Your task to perform on an android device: Open calendar and show me the fourth week of next month Image 0: 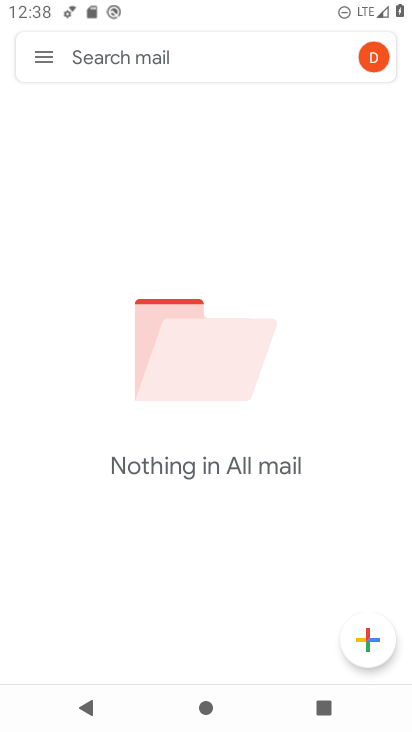
Step 0: press home button
Your task to perform on an android device: Open calendar and show me the fourth week of next month Image 1: 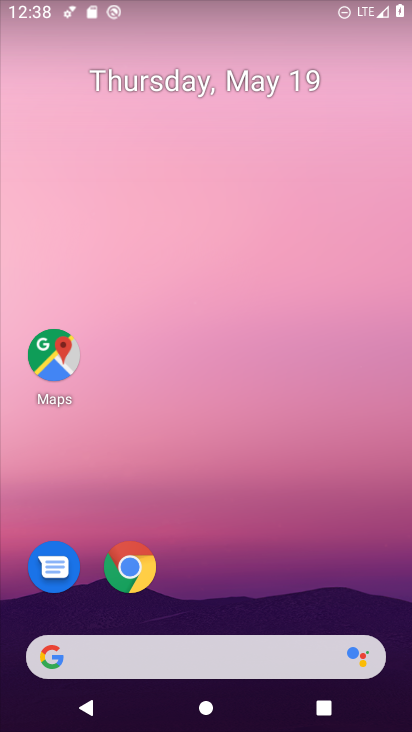
Step 1: drag from (292, 546) to (273, 61)
Your task to perform on an android device: Open calendar and show me the fourth week of next month Image 2: 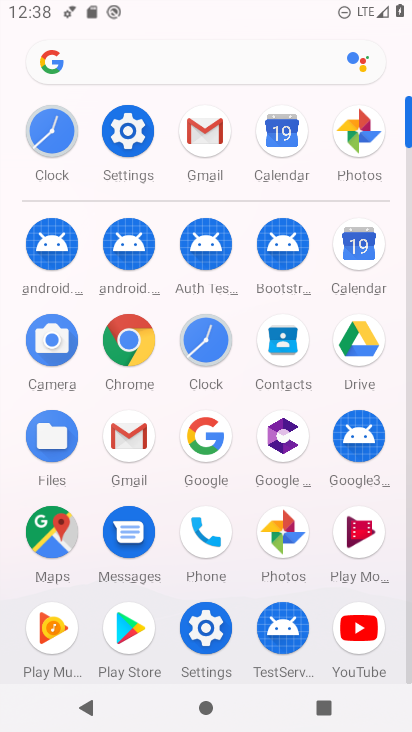
Step 2: click (286, 120)
Your task to perform on an android device: Open calendar and show me the fourth week of next month Image 3: 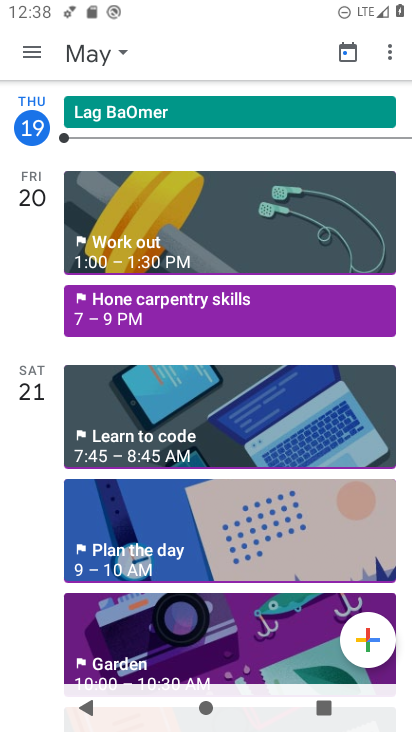
Step 3: click (34, 47)
Your task to perform on an android device: Open calendar and show me the fourth week of next month Image 4: 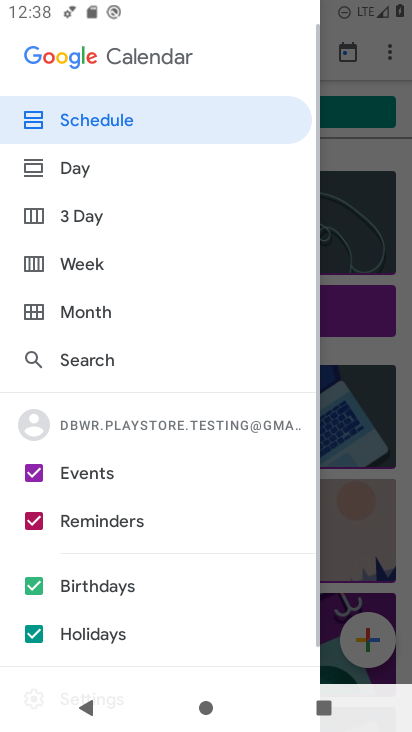
Step 4: click (37, 308)
Your task to perform on an android device: Open calendar and show me the fourth week of next month Image 5: 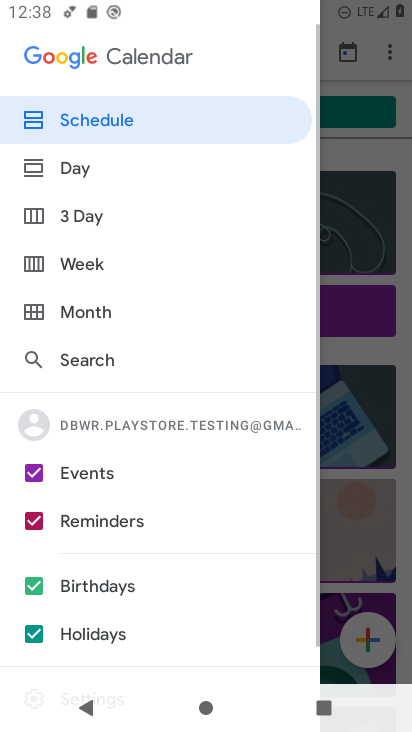
Step 5: click (37, 308)
Your task to perform on an android device: Open calendar and show me the fourth week of next month Image 6: 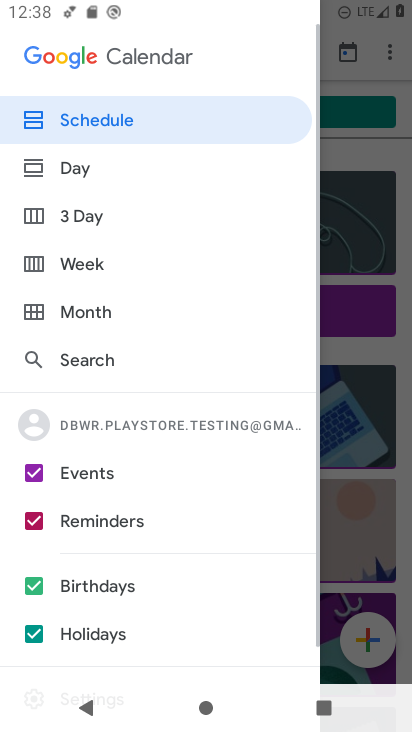
Step 6: click (69, 304)
Your task to perform on an android device: Open calendar and show me the fourth week of next month Image 7: 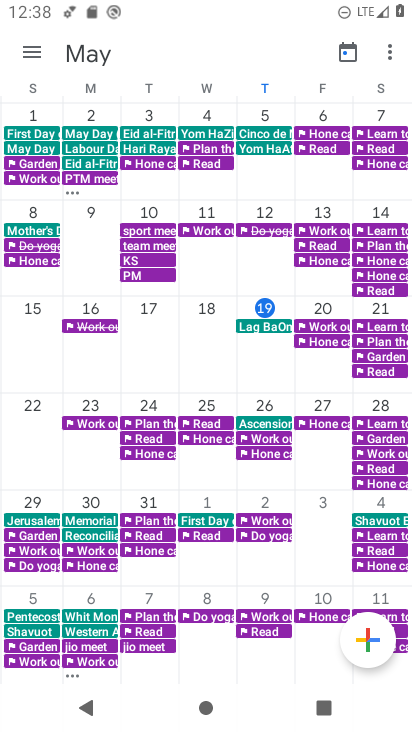
Step 7: drag from (351, 365) to (1, 415)
Your task to perform on an android device: Open calendar and show me the fourth week of next month Image 8: 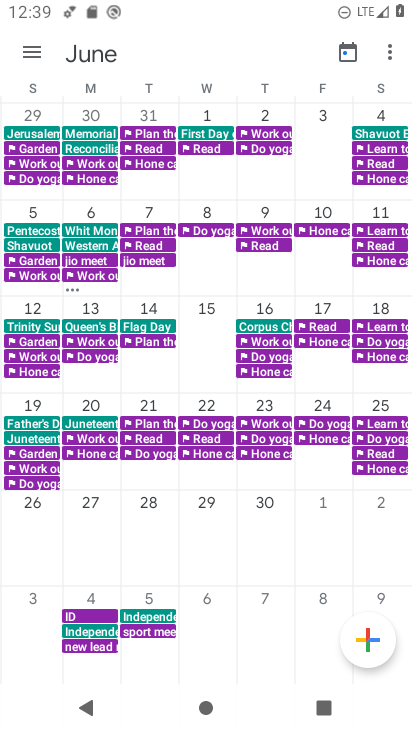
Step 8: click (49, 505)
Your task to perform on an android device: Open calendar and show me the fourth week of next month Image 9: 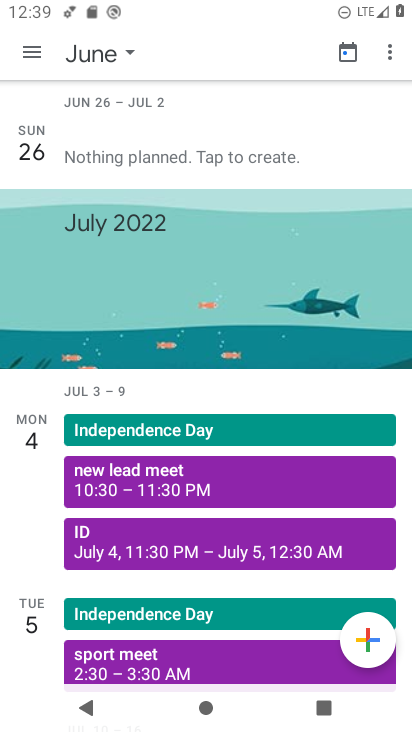
Step 9: click (30, 50)
Your task to perform on an android device: Open calendar and show me the fourth week of next month Image 10: 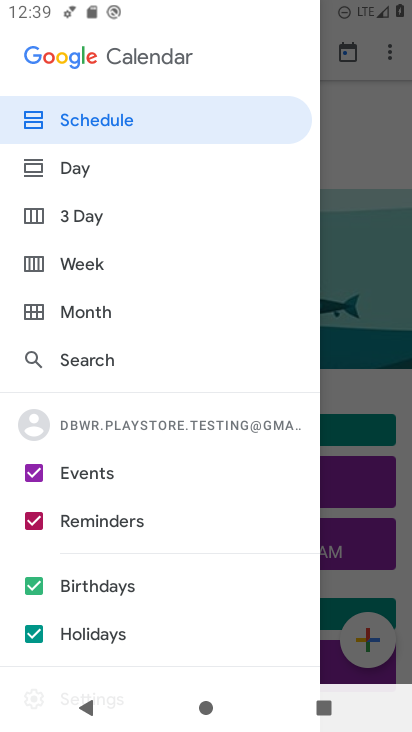
Step 10: click (61, 260)
Your task to perform on an android device: Open calendar and show me the fourth week of next month Image 11: 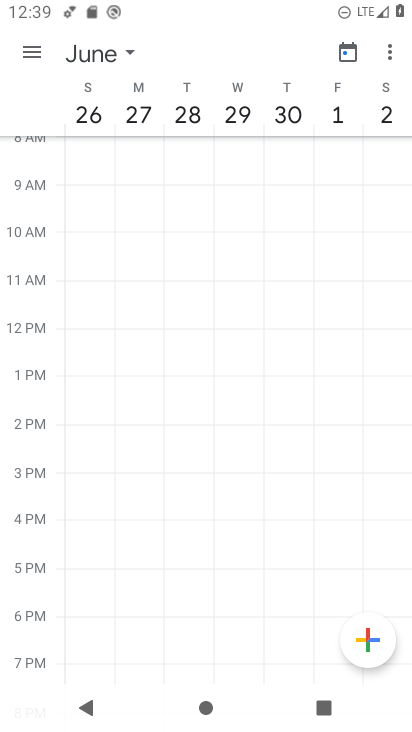
Step 11: task complete